Your task to perform on an android device: Search for "alienware area 51" on amazon, select the first entry, and add it to the cart. Image 0: 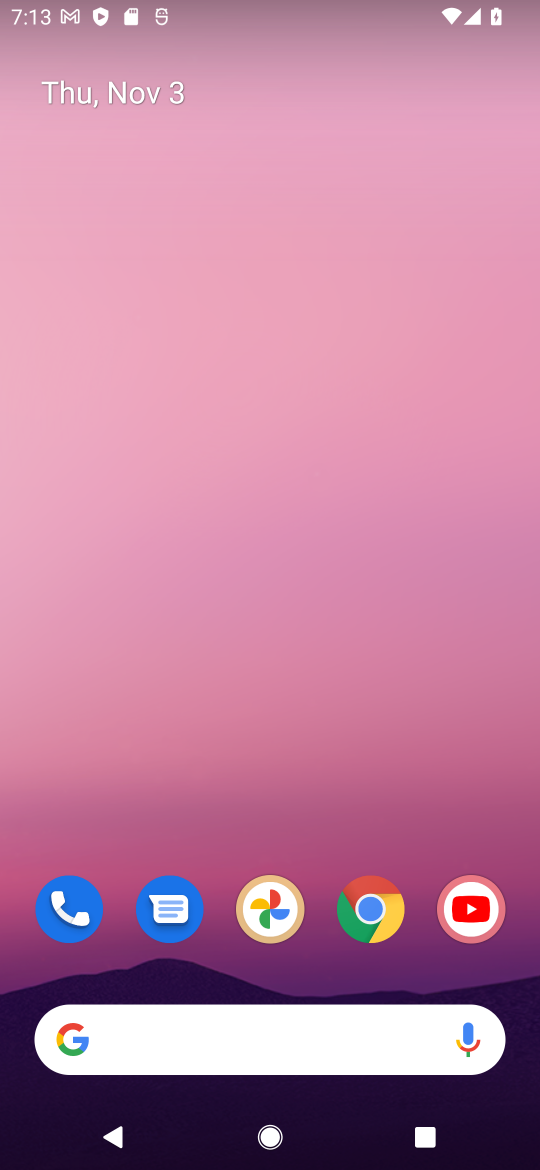
Step 0: drag from (295, 551) to (298, 394)
Your task to perform on an android device: Search for "alienware area 51" on amazon, select the first entry, and add it to the cart. Image 1: 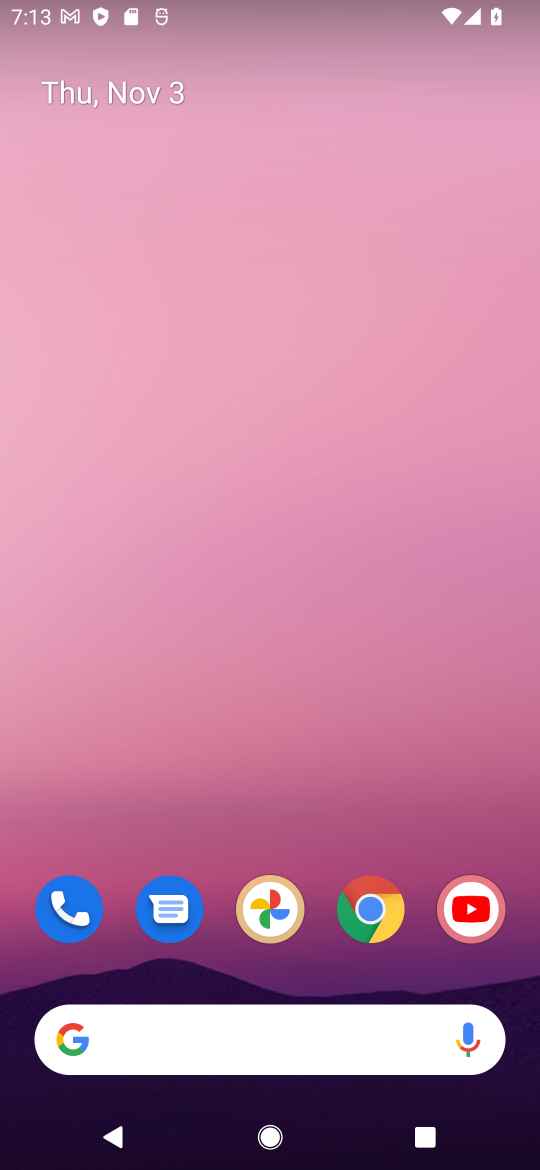
Step 1: drag from (261, 934) to (319, 9)
Your task to perform on an android device: Search for "alienware area 51" on amazon, select the first entry, and add it to the cart. Image 2: 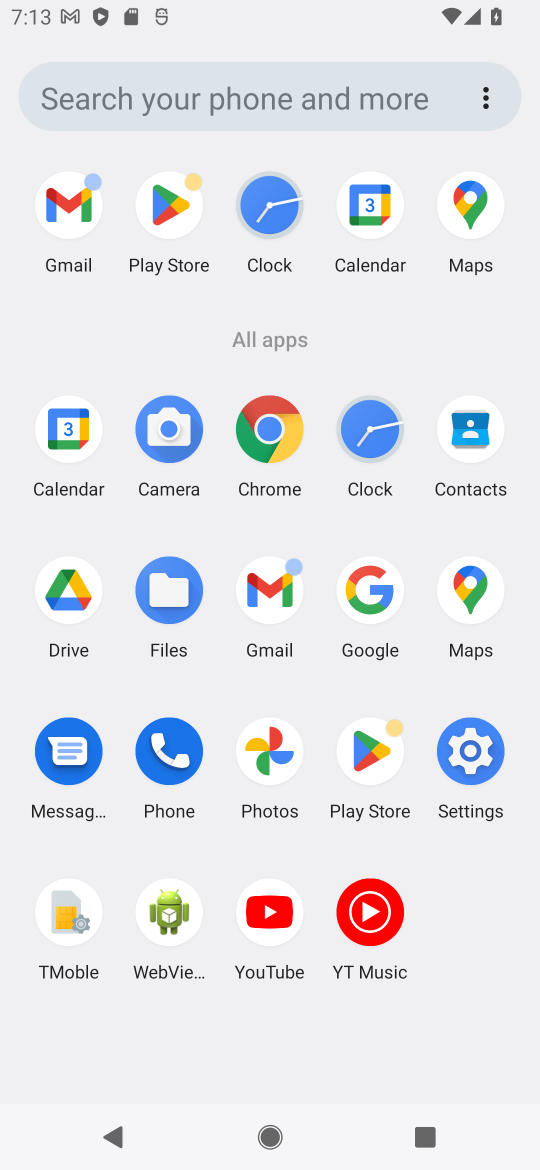
Step 2: click (383, 569)
Your task to perform on an android device: Search for "alienware area 51" on amazon, select the first entry, and add it to the cart. Image 3: 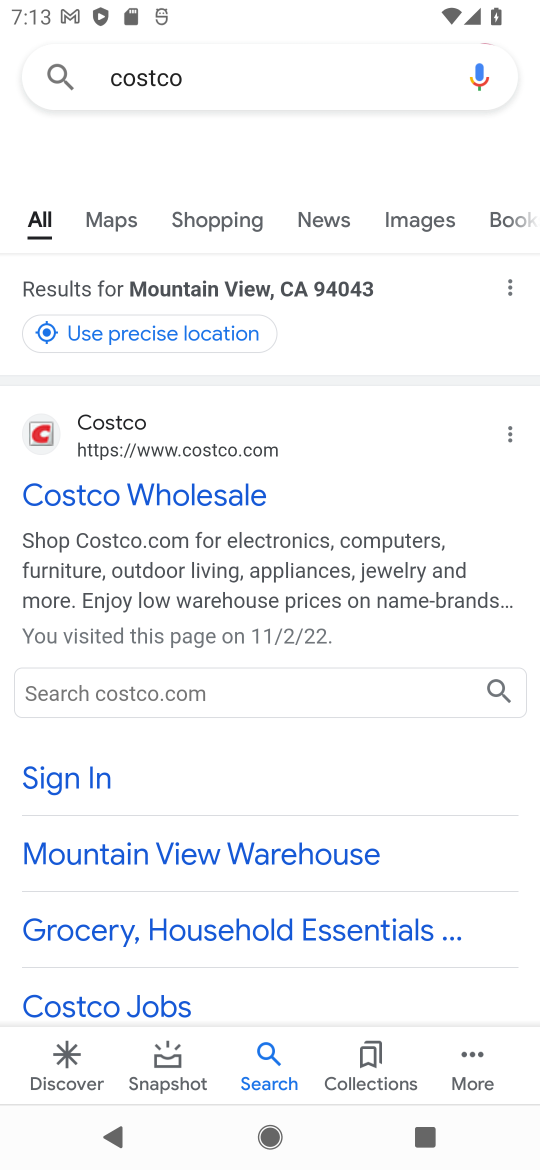
Step 3: click (258, 67)
Your task to perform on an android device: Search for "alienware area 51" on amazon, select the first entry, and add it to the cart. Image 4: 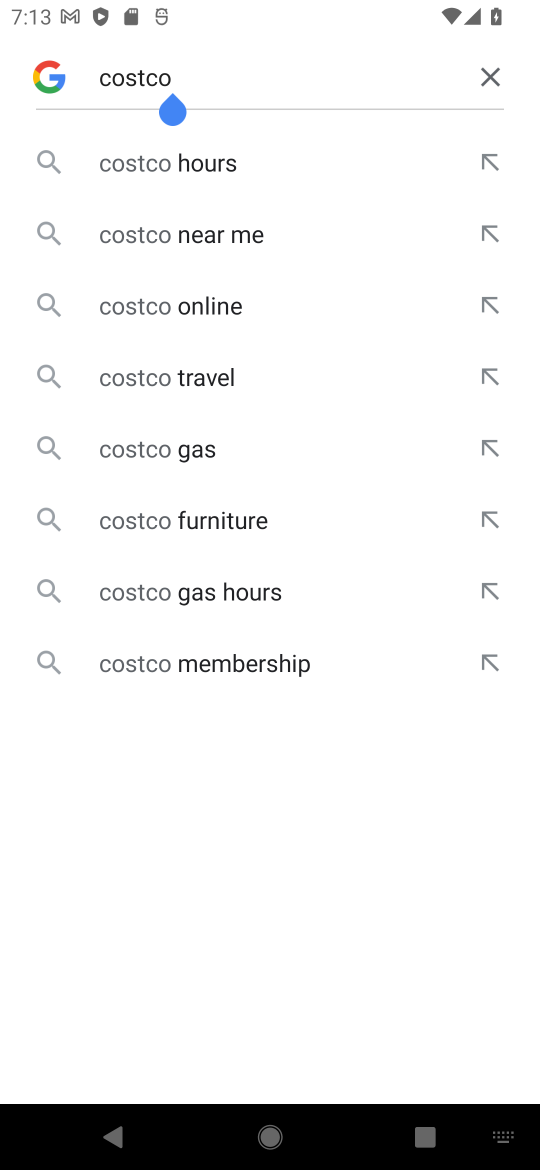
Step 4: click (484, 63)
Your task to perform on an android device: Search for "alienware area 51" on amazon, select the first entry, and add it to the cart. Image 5: 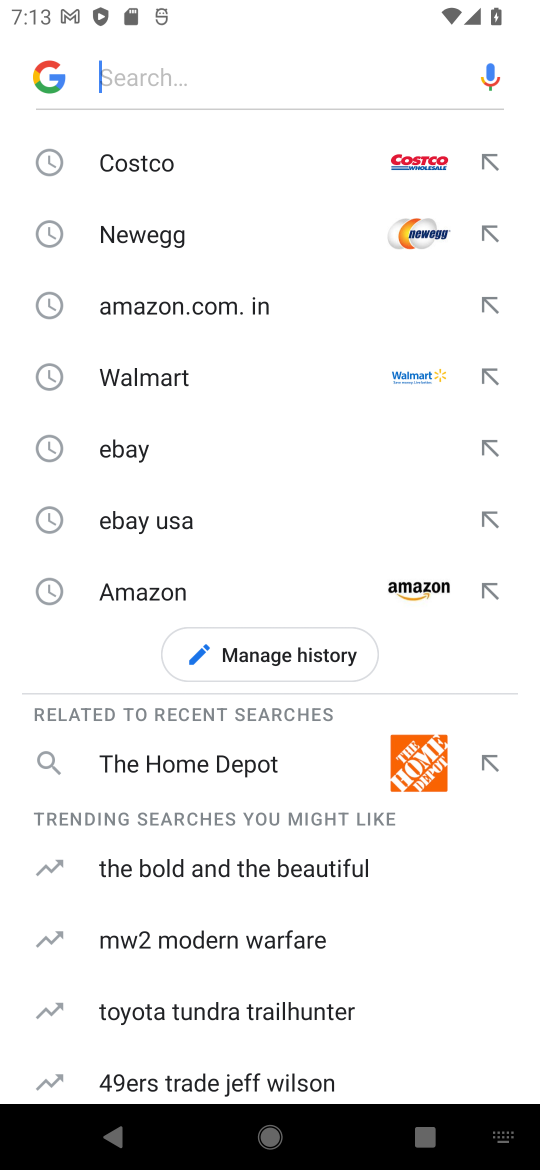
Step 5: click (200, 62)
Your task to perform on an android device: Search for "alienware area 51" on amazon, select the first entry, and add it to the cart. Image 6: 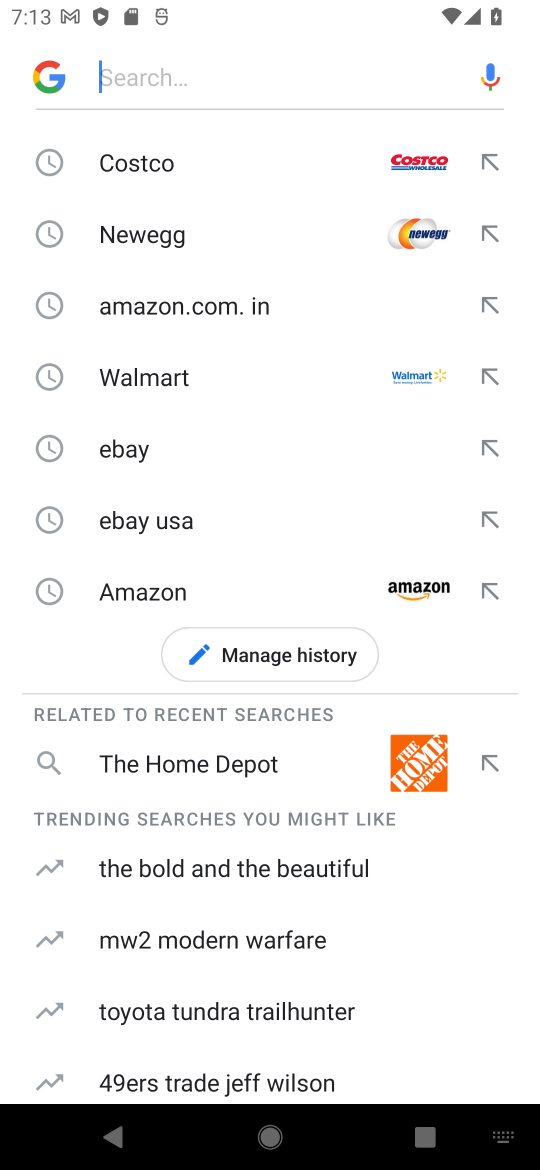
Step 6: type "amazon "
Your task to perform on an android device: Search for "alienware area 51" on amazon, select the first entry, and add it to the cart. Image 7: 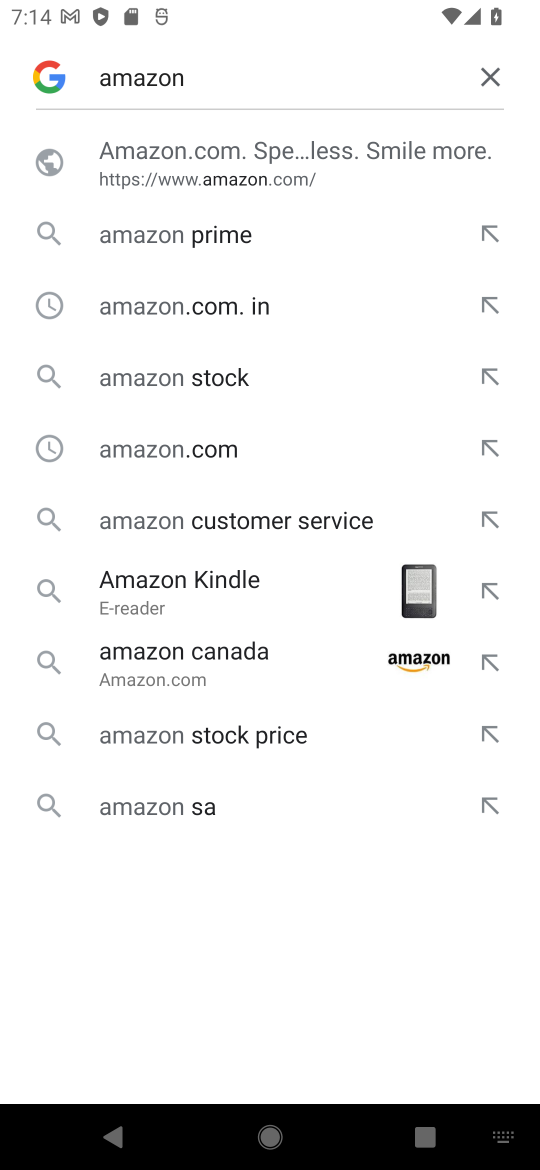
Step 7: click (153, 453)
Your task to perform on an android device: Search for "alienware area 51" on amazon, select the first entry, and add it to the cart. Image 8: 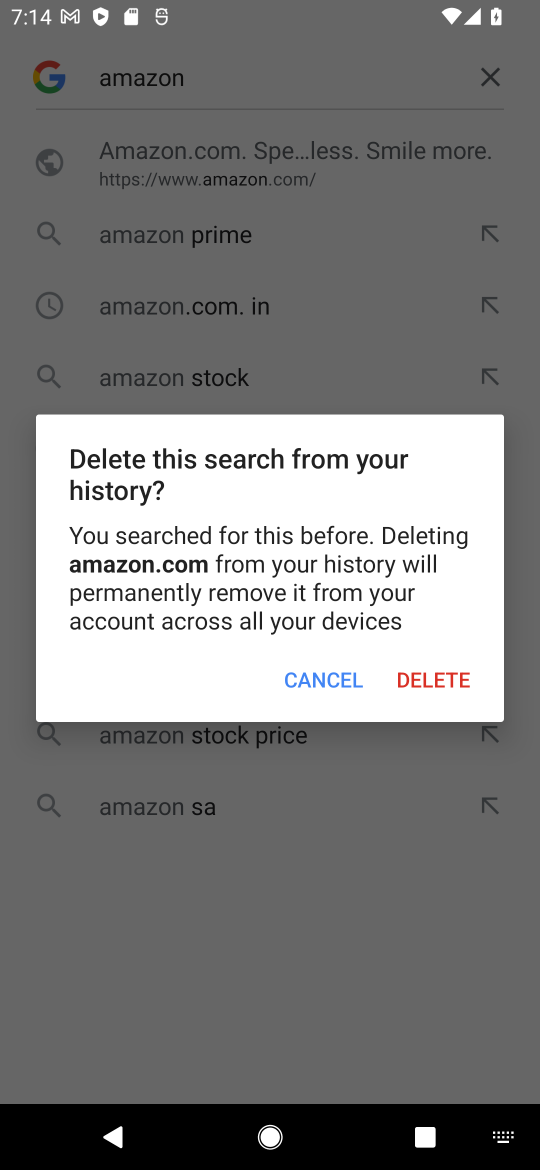
Step 8: click (335, 658)
Your task to perform on an android device: Search for "alienware area 51" on amazon, select the first entry, and add it to the cart. Image 9: 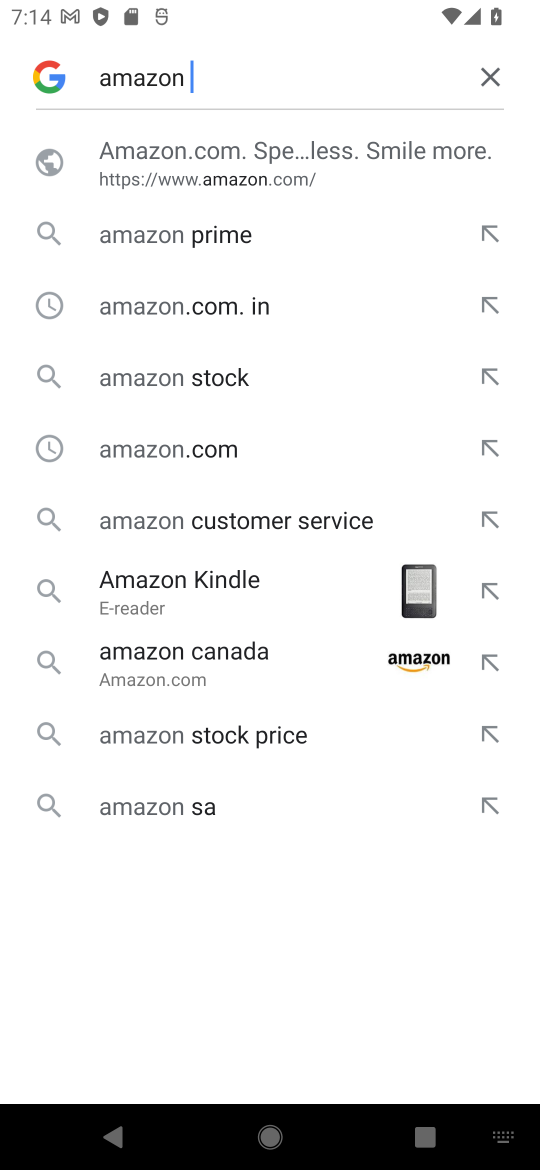
Step 9: click (162, 292)
Your task to perform on an android device: Search for "alienware area 51" on amazon, select the first entry, and add it to the cart. Image 10: 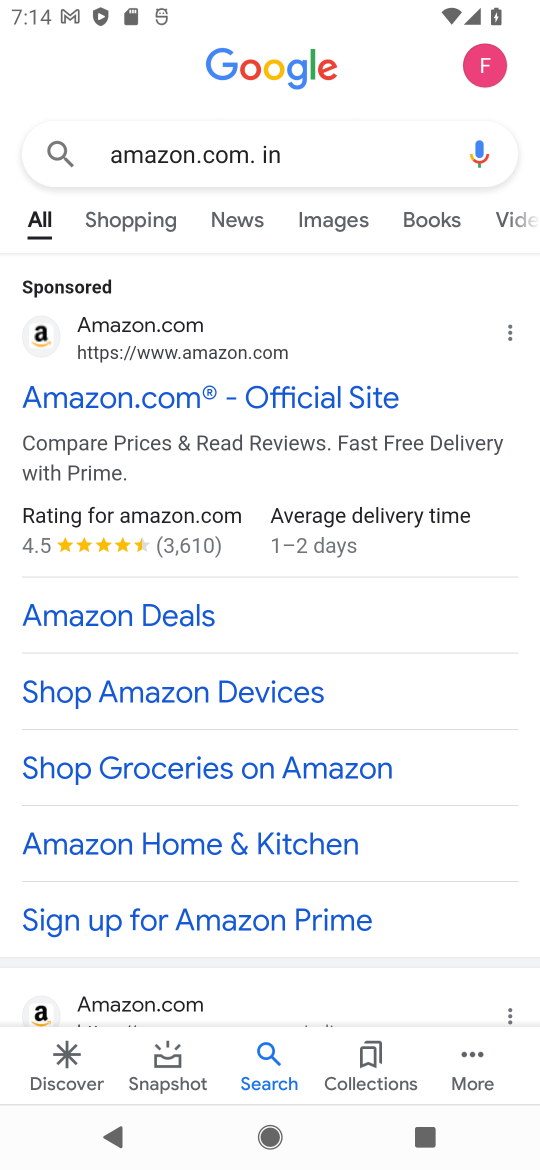
Step 10: click (137, 396)
Your task to perform on an android device: Search for "alienware area 51" on amazon, select the first entry, and add it to the cart. Image 11: 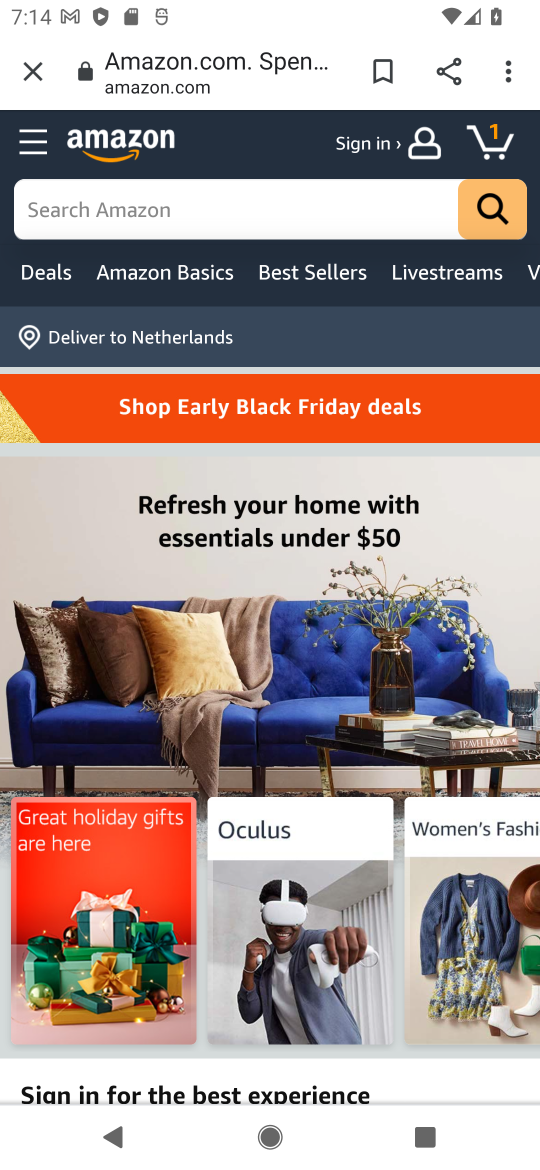
Step 11: click (218, 189)
Your task to perform on an android device: Search for "alienware area 51" on amazon, select the first entry, and add it to the cart. Image 12: 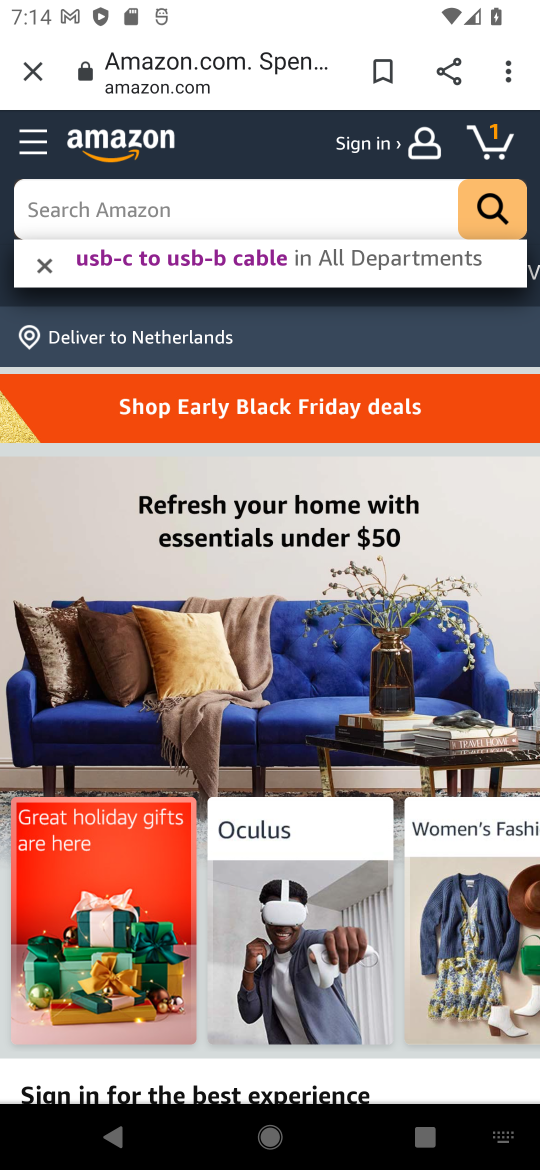
Step 12: type "alienware area 51 "
Your task to perform on an android device: Search for "alienware area 51" on amazon, select the first entry, and add it to the cart. Image 13: 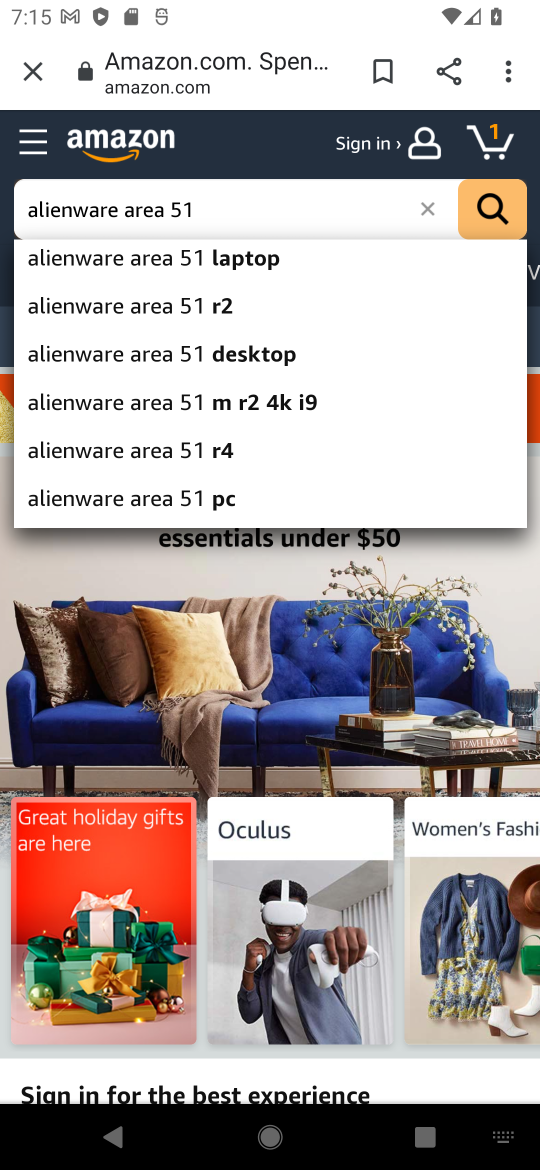
Step 13: click (195, 260)
Your task to perform on an android device: Search for "alienware area 51" on amazon, select the first entry, and add it to the cart. Image 14: 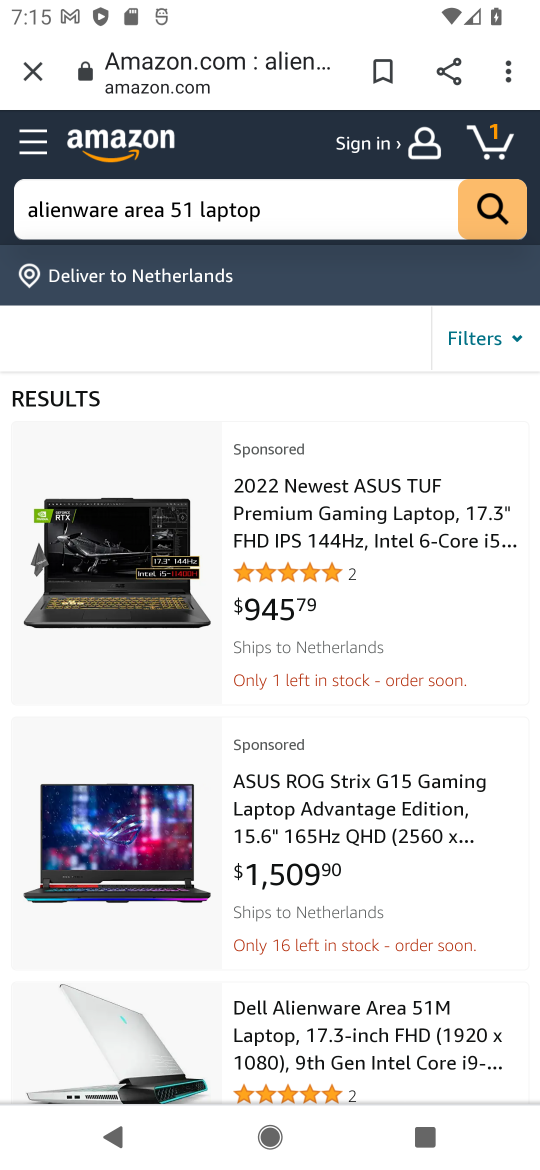
Step 14: click (311, 492)
Your task to perform on an android device: Search for "alienware area 51" on amazon, select the first entry, and add it to the cart. Image 15: 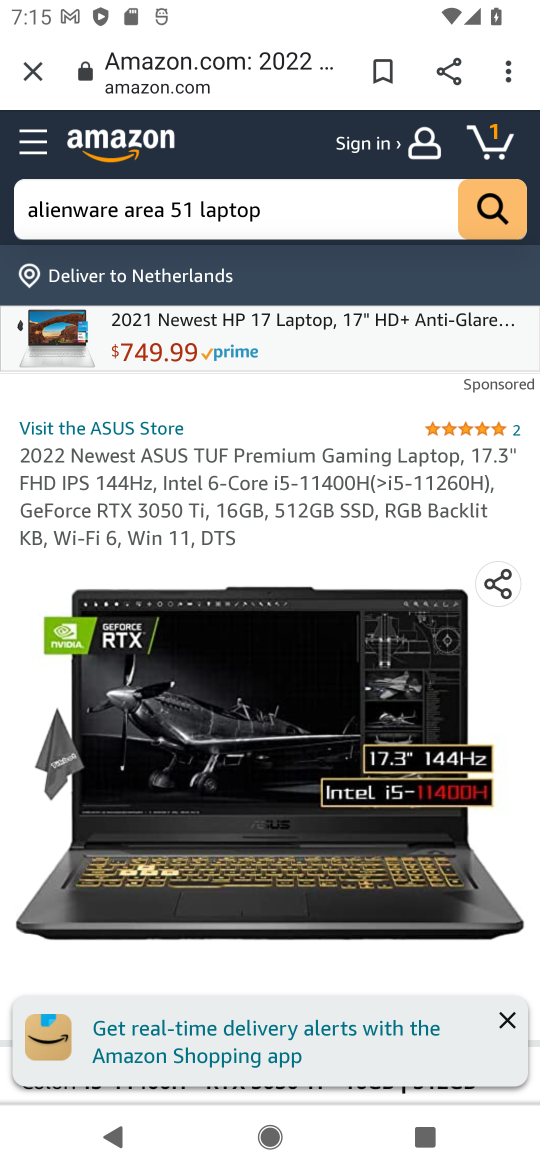
Step 15: click (506, 1012)
Your task to perform on an android device: Search for "alienware area 51" on amazon, select the first entry, and add it to the cart. Image 16: 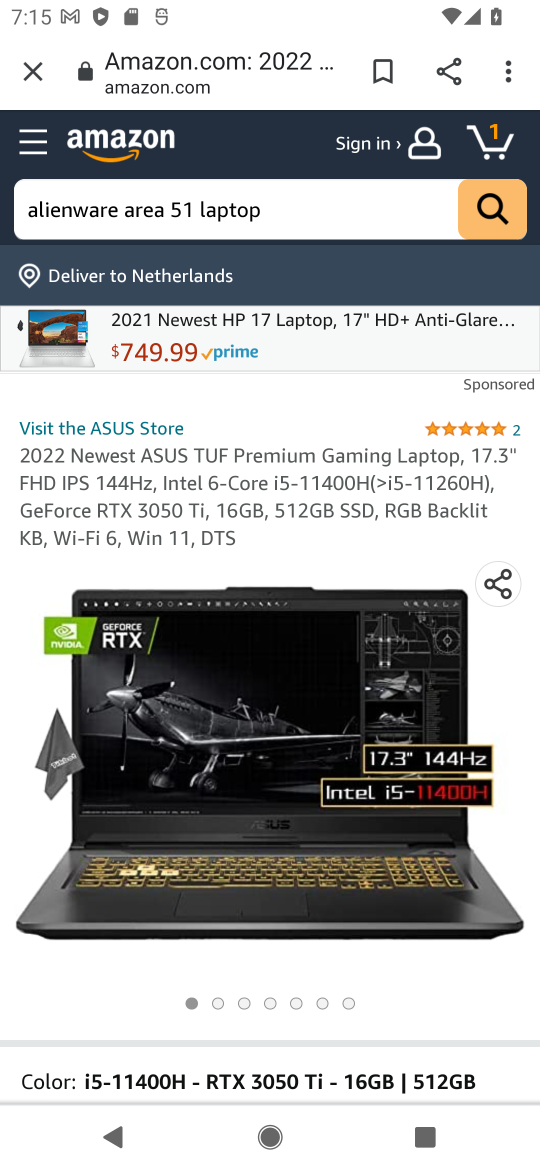
Step 16: drag from (286, 892) to (376, 230)
Your task to perform on an android device: Search for "alienware area 51" on amazon, select the first entry, and add it to the cart. Image 17: 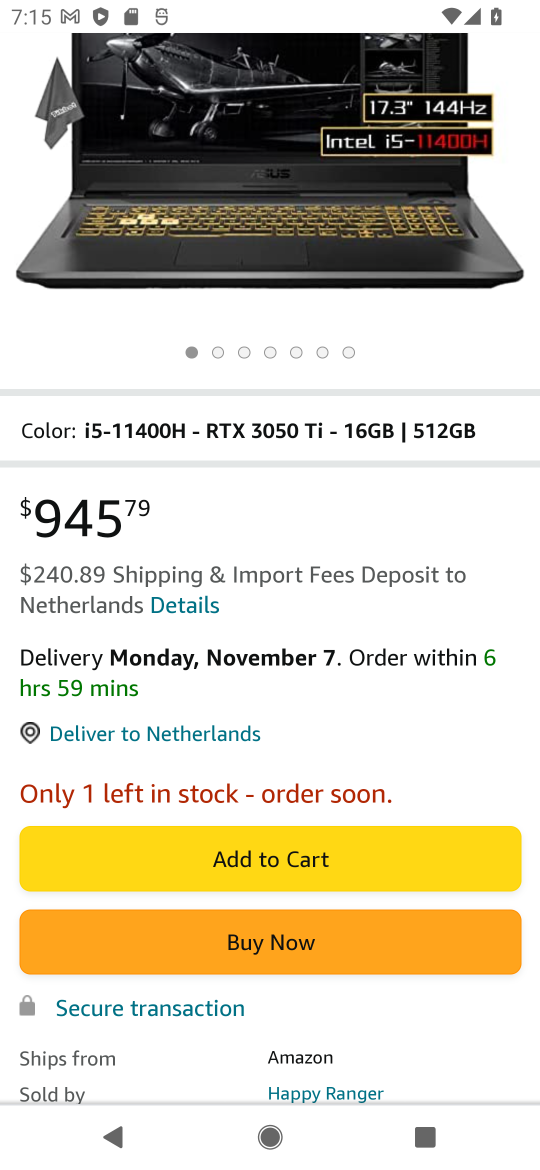
Step 17: click (287, 854)
Your task to perform on an android device: Search for "alienware area 51" on amazon, select the first entry, and add it to the cart. Image 18: 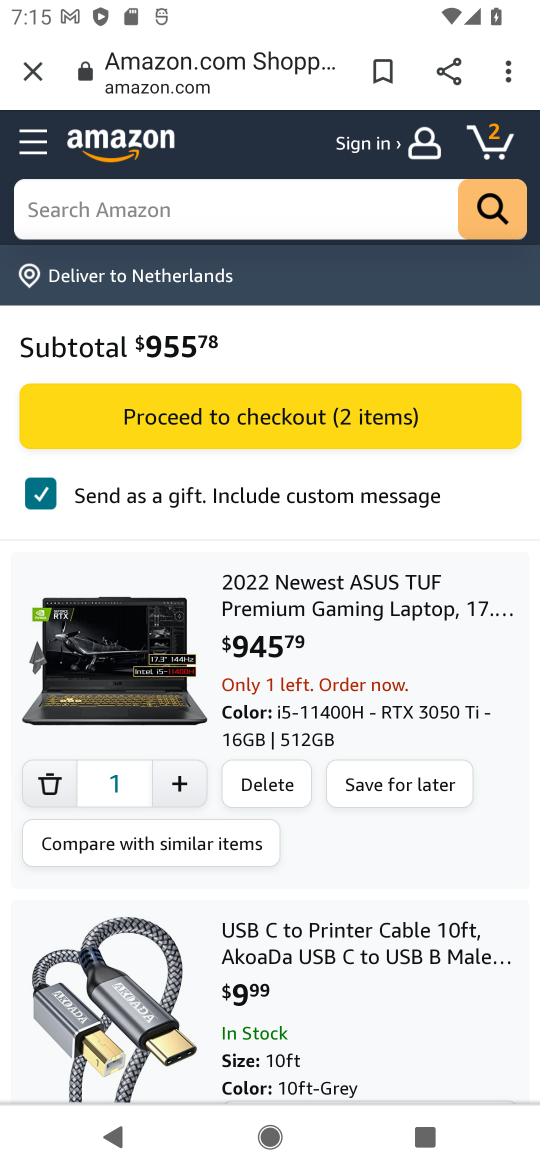
Step 18: task complete